Your task to perform on an android device: turn pop-ups on in chrome Image 0: 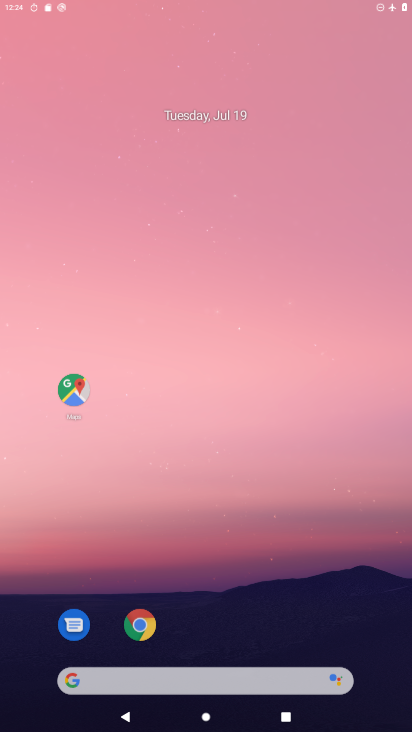
Step 0: click (264, 168)
Your task to perform on an android device: turn pop-ups on in chrome Image 1: 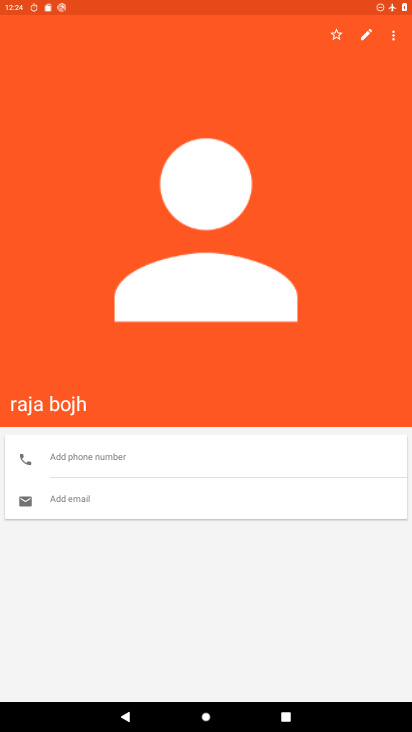
Step 1: press home button
Your task to perform on an android device: turn pop-ups on in chrome Image 2: 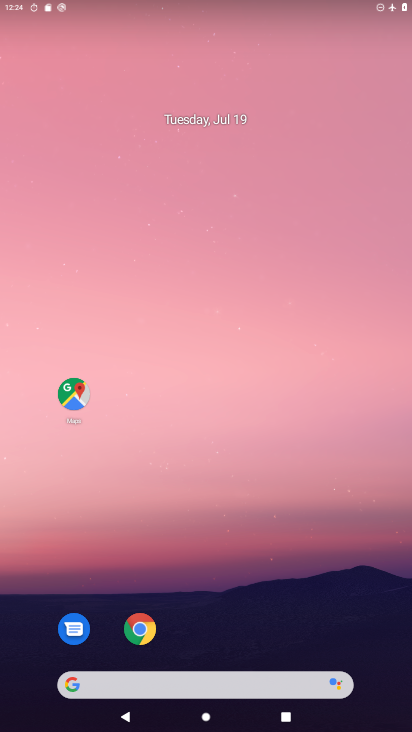
Step 2: drag from (324, 620) to (270, 93)
Your task to perform on an android device: turn pop-ups on in chrome Image 3: 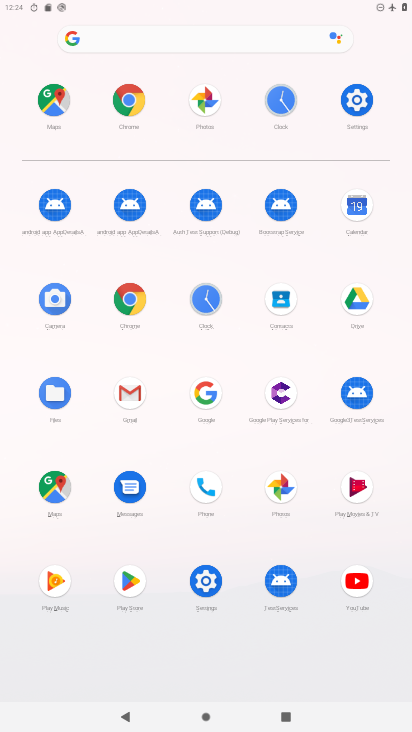
Step 3: click (134, 97)
Your task to perform on an android device: turn pop-ups on in chrome Image 4: 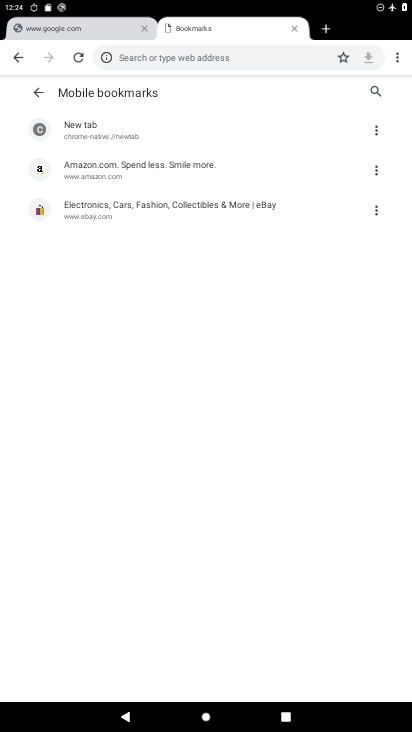
Step 4: drag from (399, 52) to (273, 302)
Your task to perform on an android device: turn pop-ups on in chrome Image 5: 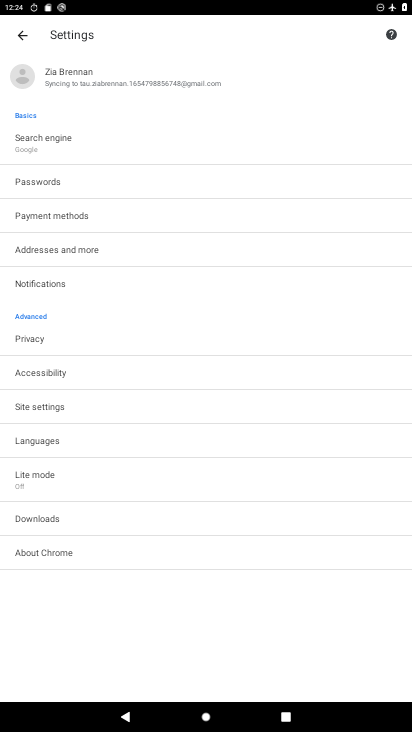
Step 5: click (37, 402)
Your task to perform on an android device: turn pop-ups on in chrome Image 6: 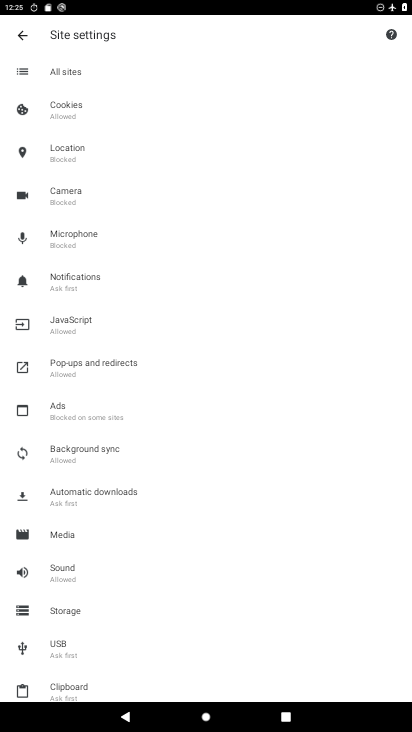
Step 6: click (109, 364)
Your task to perform on an android device: turn pop-ups on in chrome Image 7: 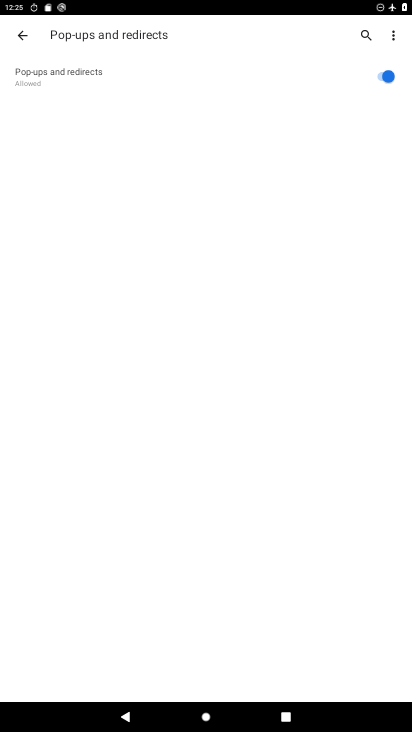
Step 7: task complete